Your task to perform on an android device: all mails in gmail Image 0: 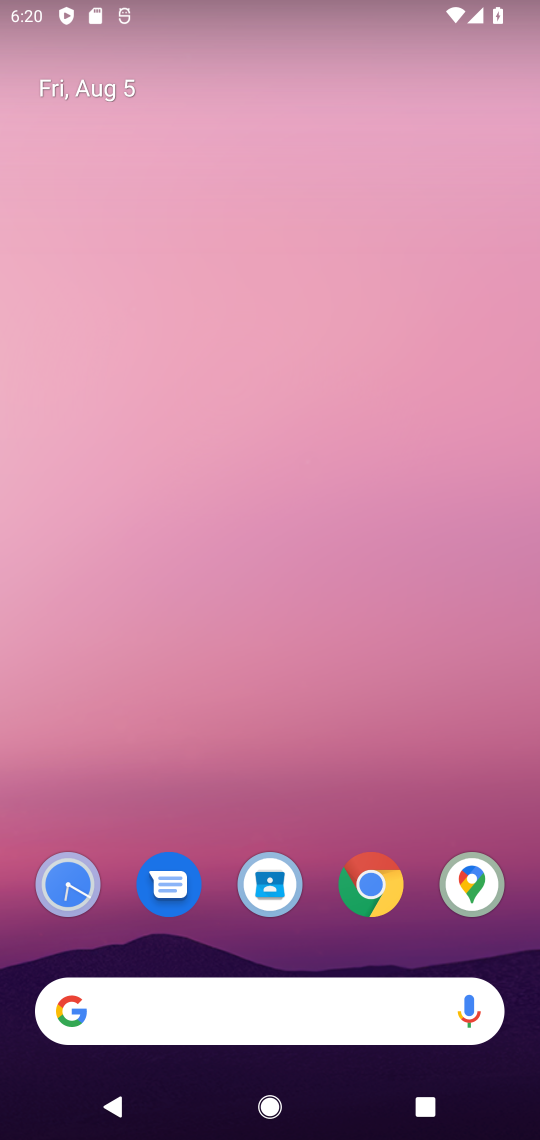
Step 0: drag from (320, 817) to (311, 4)
Your task to perform on an android device: all mails in gmail Image 1: 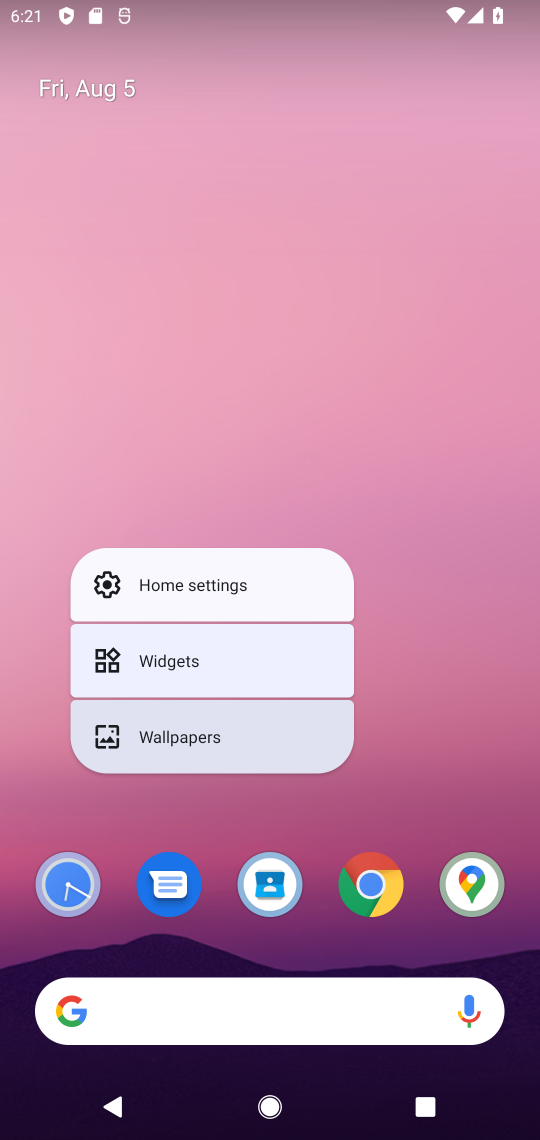
Step 1: drag from (399, 749) to (400, 0)
Your task to perform on an android device: all mails in gmail Image 2: 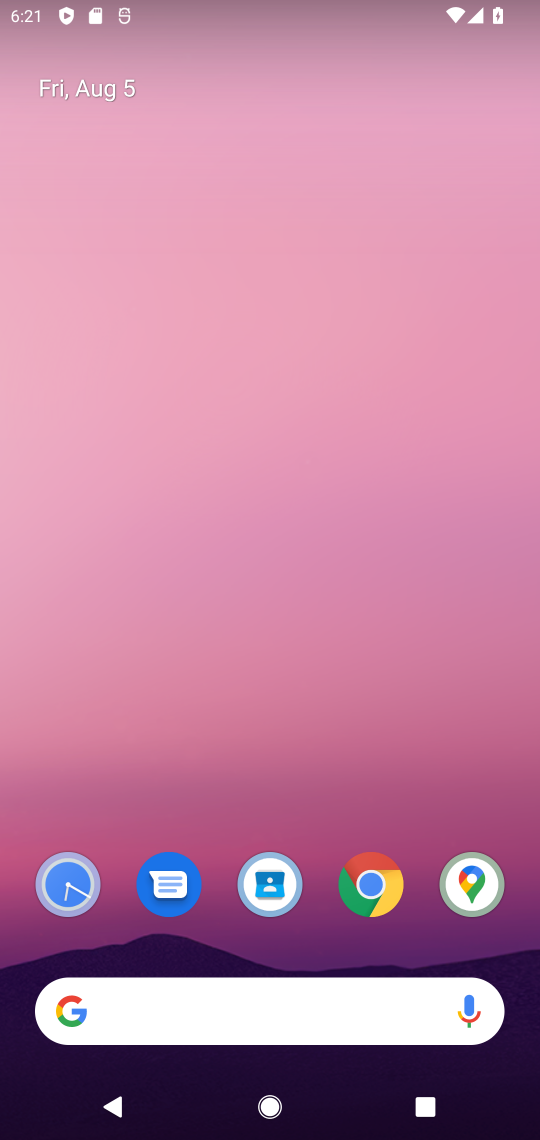
Step 2: drag from (321, 785) to (348, 248)
Your task to perform on an android device: all mails in gmail Image 3: 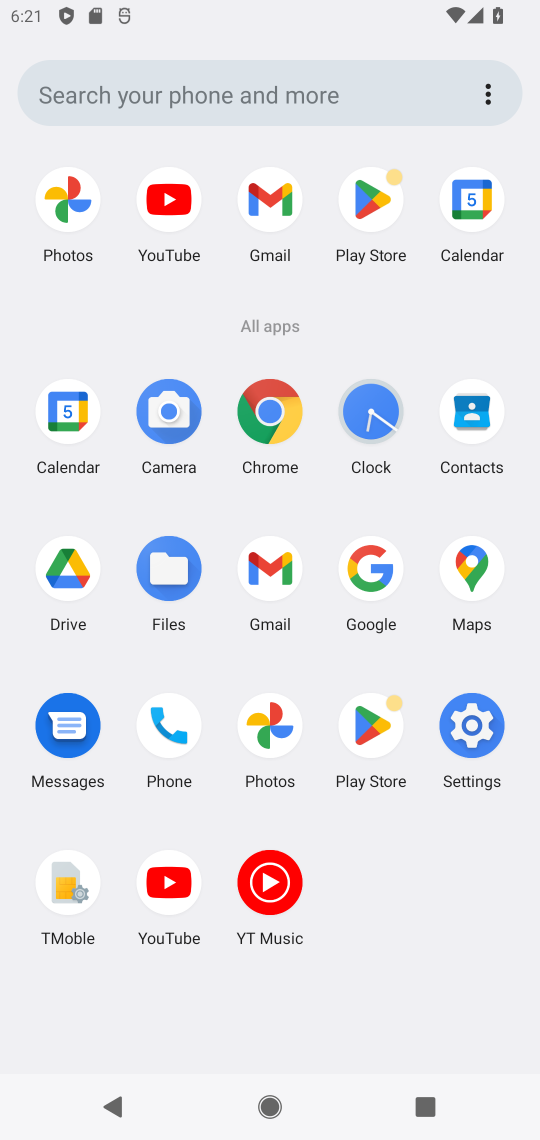
Step 3: click (272, 553)
Your task to perform on an android device: all mails in gmail Image 4: 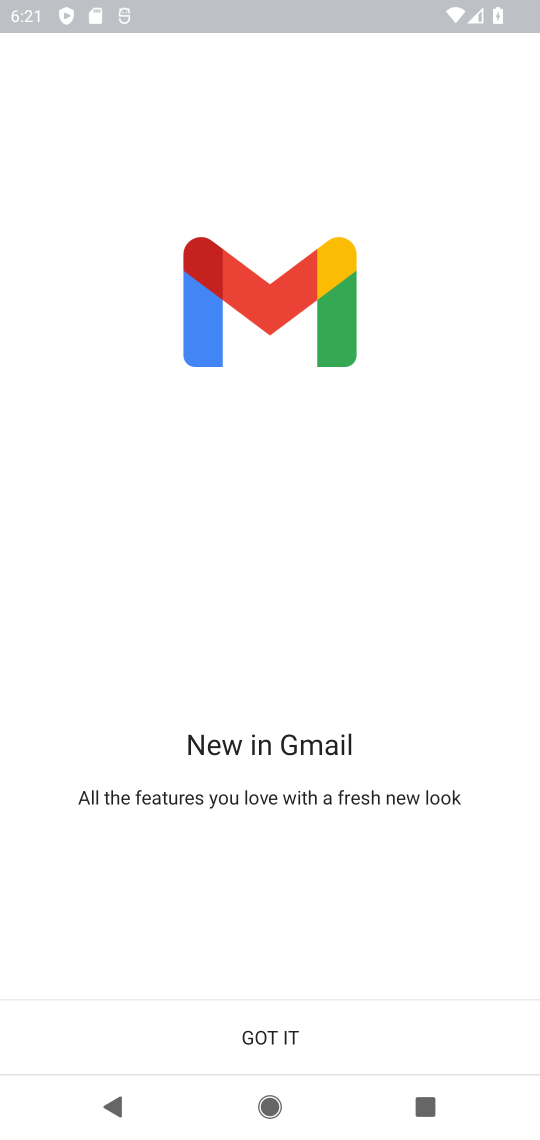
Step 4: click (255, 1047)
Your task to perform on an android device: all mails in gmail Image 5: 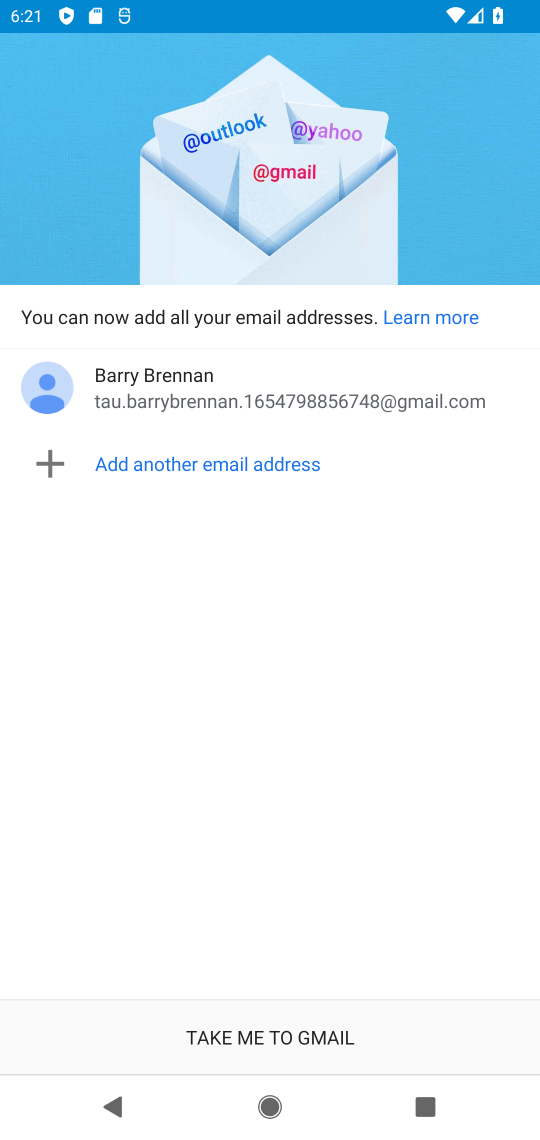
Step 5: click (292, 1019)
Your task to perform on an android device: all mails in gmail Image 6: 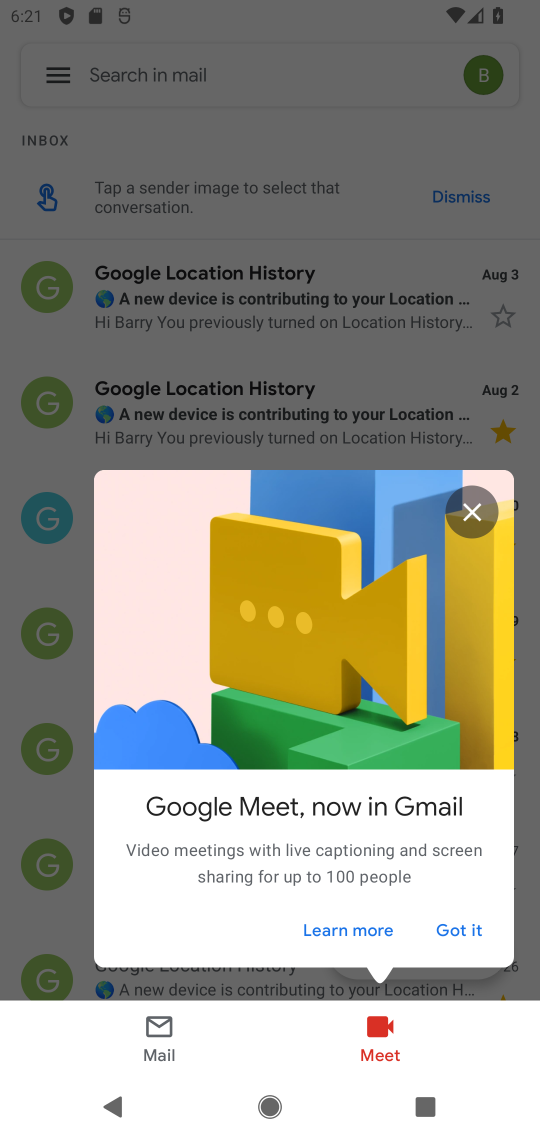
Step 6: click (462, 928)
Your task to perform on an android device: all mails in gmail Image 7: 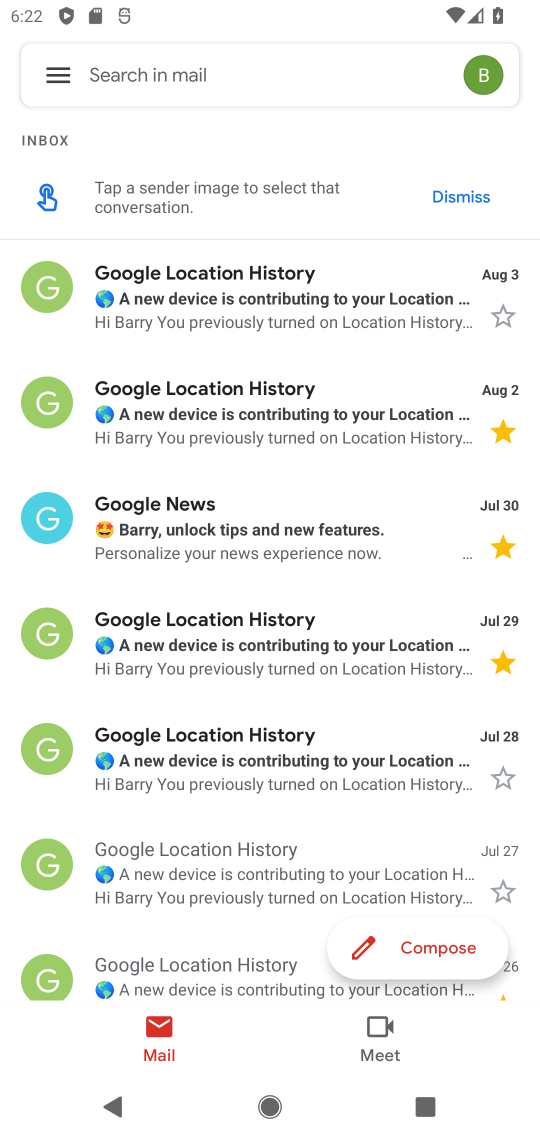
Step 7: click (53, 65)
Your task to perform on an android device: all mails in gmail Image 8: 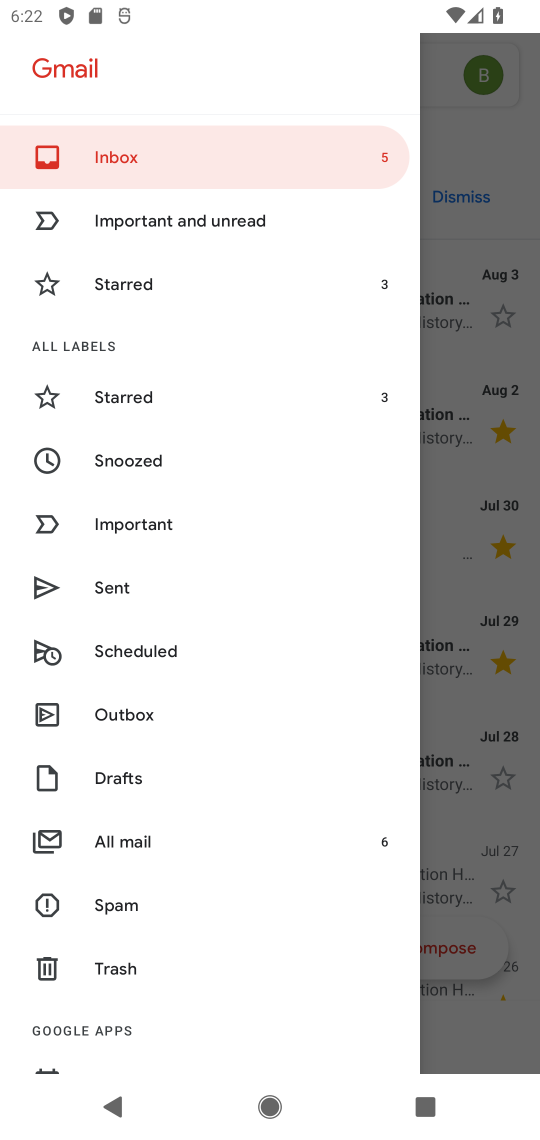
Step 8: click (145, 835)
Your task to perform on an android device: all mails in gmail Image 9: 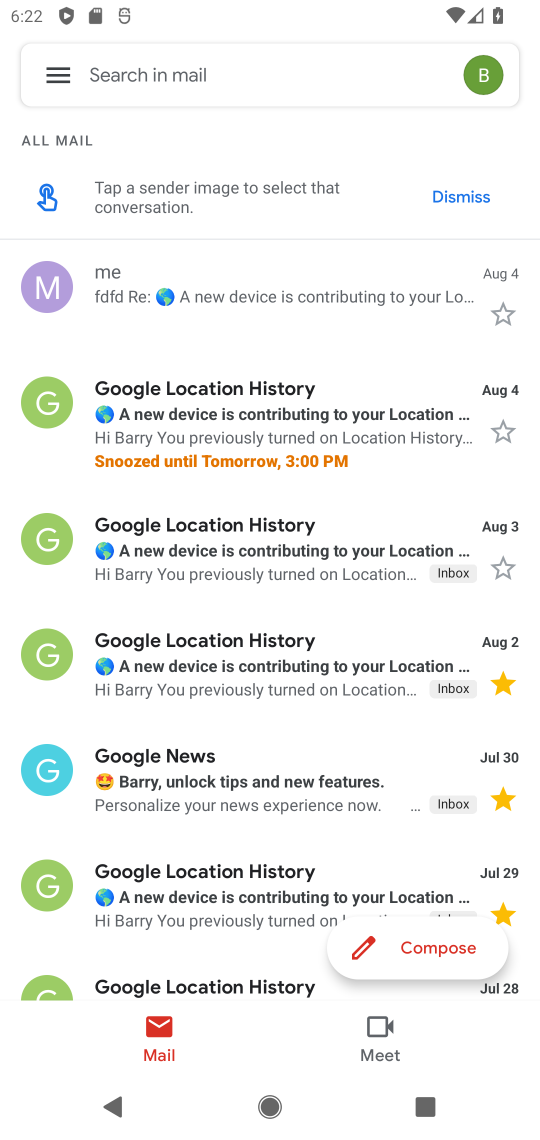
Step 9: task complete